Your task to perform on an android device: Open CNN.com Image 0: 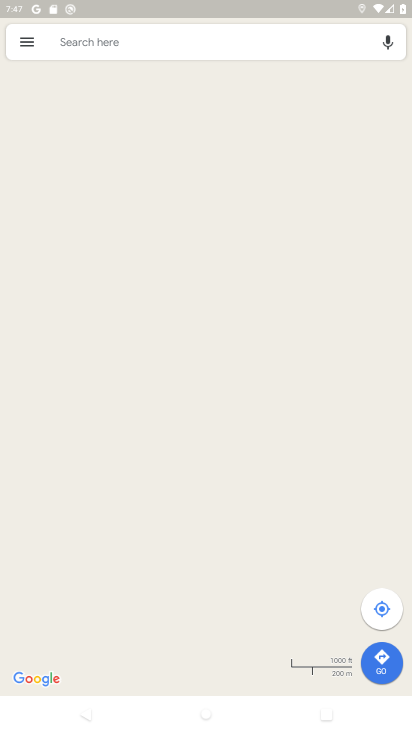
Step 0: press home button
Your task to perform on an android device: Open CNN.com Image 1: 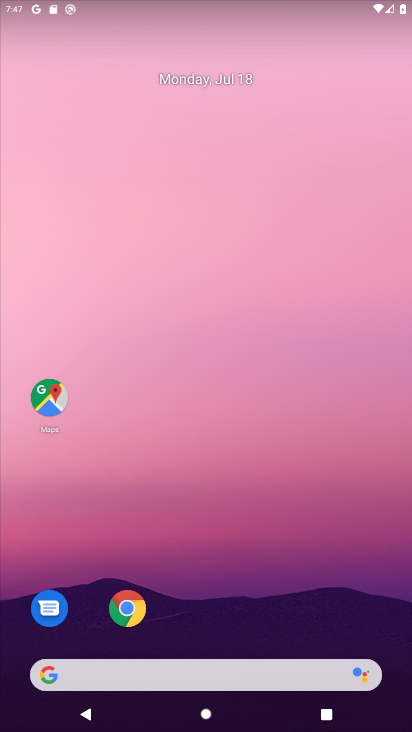
Step 1: drag from (218, 665) to (163, 4)
Your task to perform on an android device: Open CNN.com Image 2: 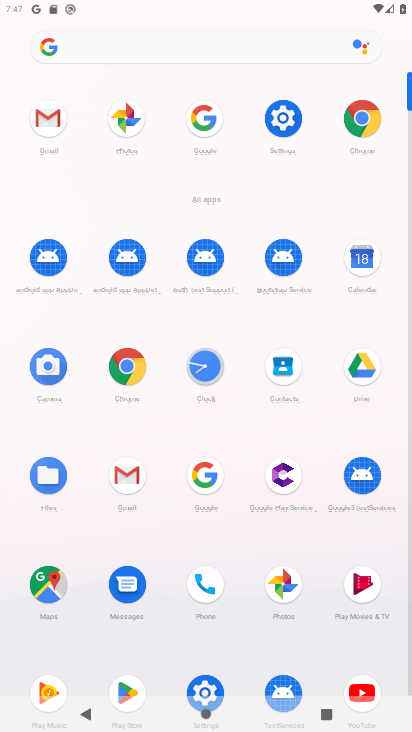
Step 2: click (352, 125)
Your task to perform on an android device: Open CNN.com Image 3: 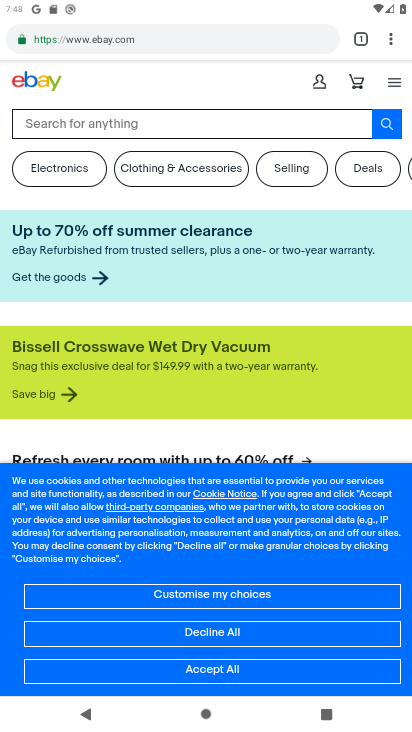
Step 3: click (356, 38)
Your task to perform on an android device: Open CNN.com Image 4: 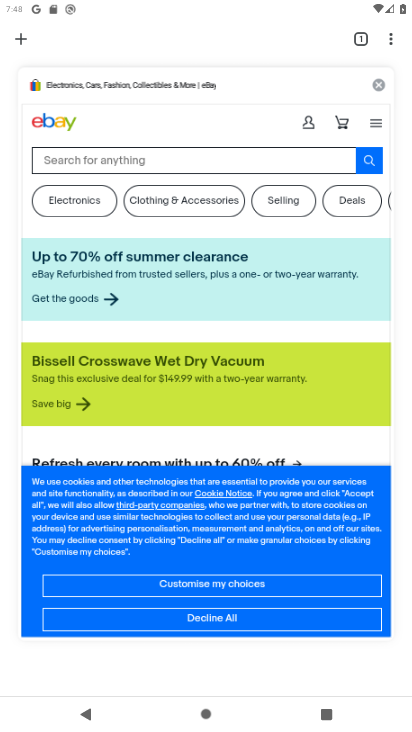
Step 4: click (14, 37)
Your task to perform on an android device: Open CNN.com Image 5: 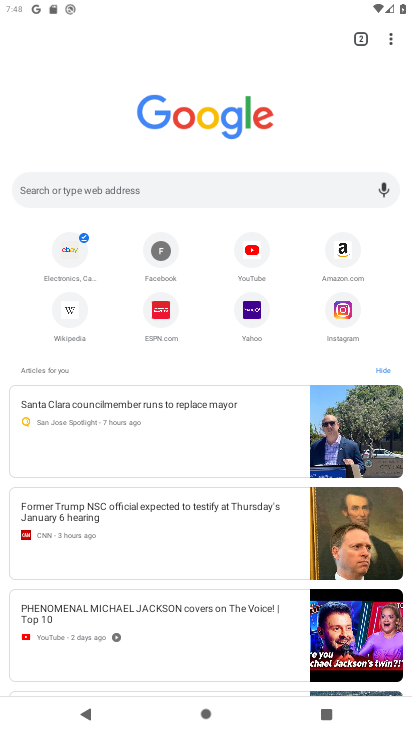
Step 5: click (142, 190)
Your task to perform on an android device: Open CNN.com Image 6: 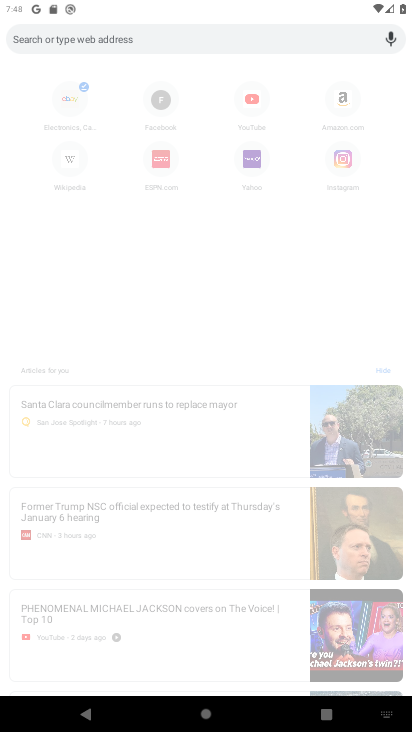
Step 6: type "CNN.com"
Your task to perform on an android device: Open CNN.com Image 7: 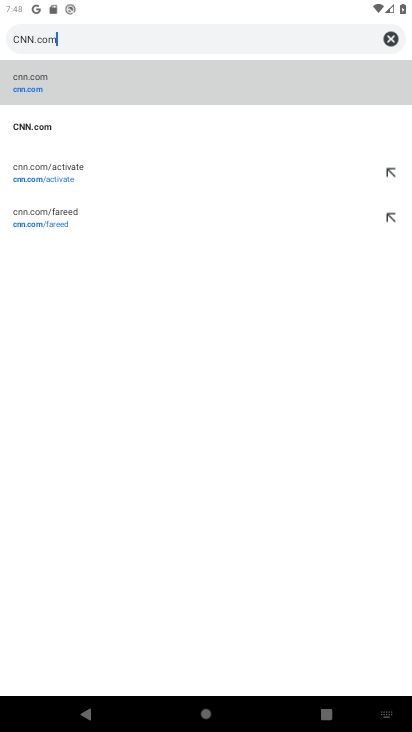
Step 7: type ""
Your task to perform on an android device: Open CNN.com Image 8: 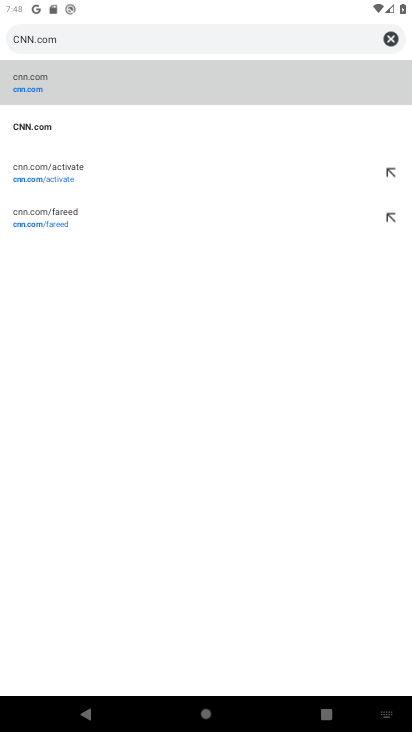
Step 8: click (52, 93)
Your task to perform on an android device: Open CNN.com Image 9: 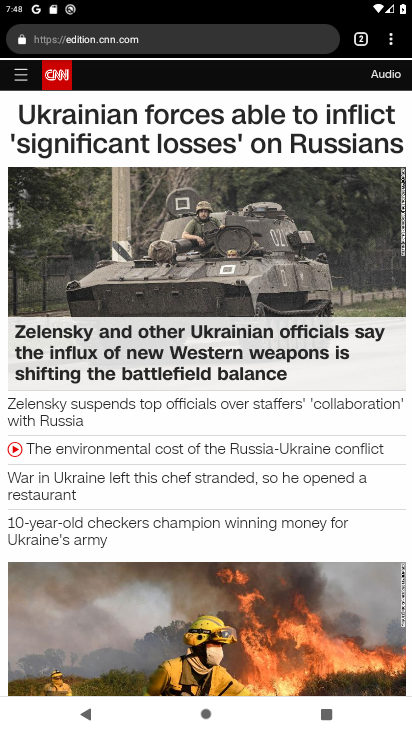
Step 9: task complete